Your task to perform on an android device: uninstall "Facebook Messenger" Image 0: 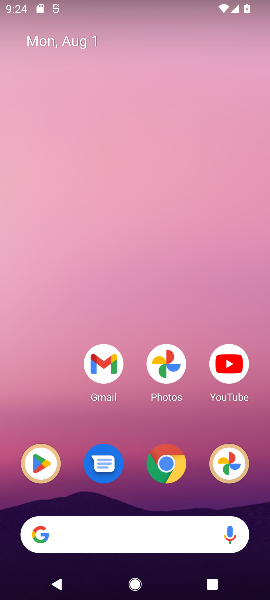
Step 0: click (57, 477)
Your task to perform on an android device: uninstall "Facebook Messenger" Image 1: 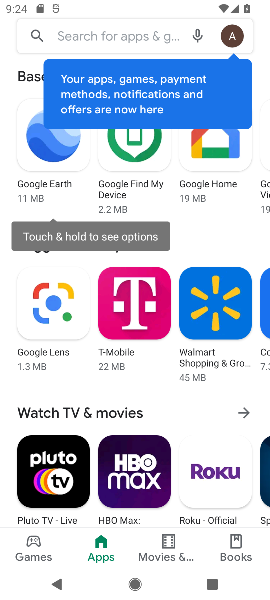
Step 1: click (93, 32)
Your task to perform on an android device: uninstall "Facebook Messenger" Image 2: 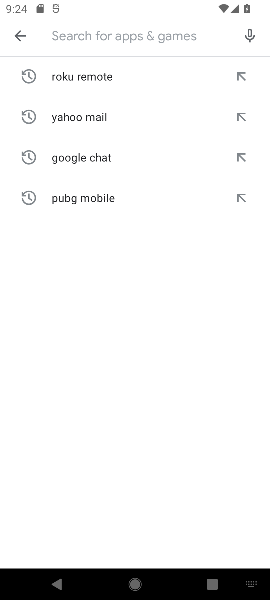
Step 2: click (97, 32)
Your task to perform on an android device: uninstall "Facebook Messenger" Image 3: 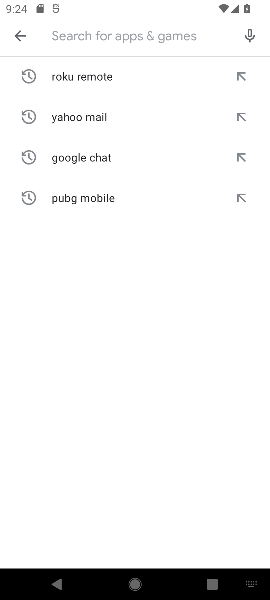
Step 3: type "Facebook Messenger"
Your task to perform on an android device: uninstall "Facebook Messenger" Image 4: 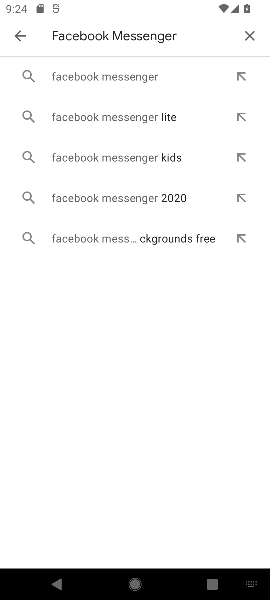
Step 4: click (135, 76)
Your task to perform on an android device: uninstall "Facebook Messenger" Image 5: 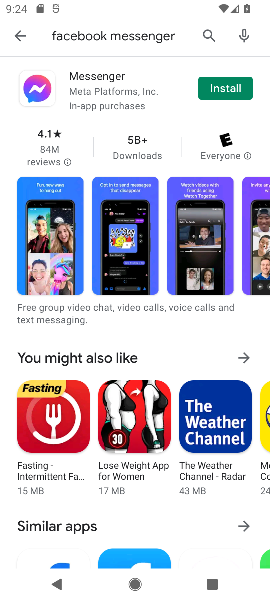
Step 5: task complete